Your task to perform on an android device: clear history in the chrome app Image 0: 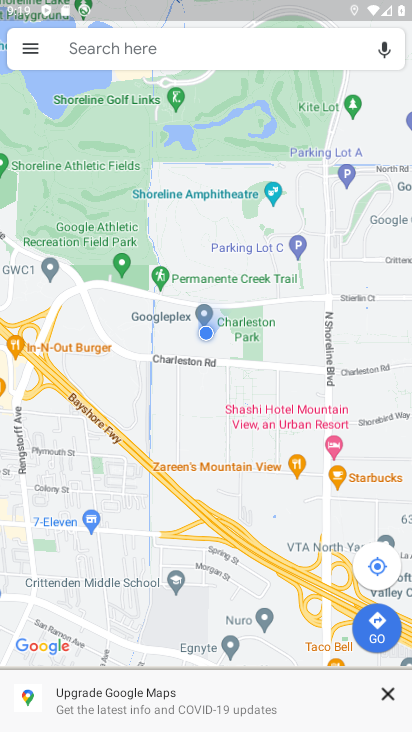
Step 0: press home button
Your task to perform on an android device: clear history in the chrome app Image 1: 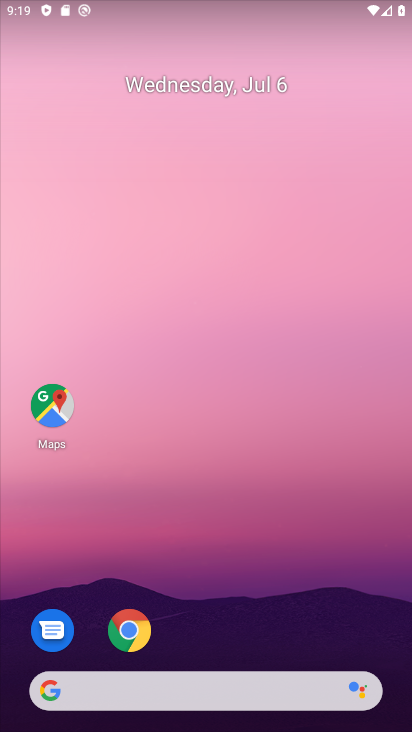
Step 1: click (126, 639)
Your task to perform on an android device: clear history in the chrome app Image 2: 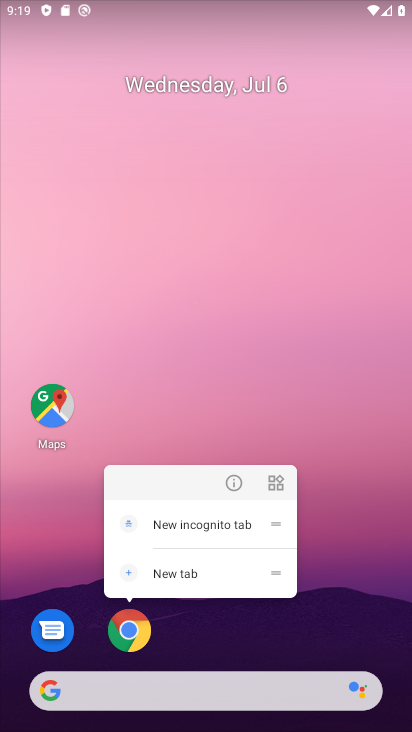
Step 2: click (127, 637)
Your task to perform on an android device: clear history in the chrome app Image 3: 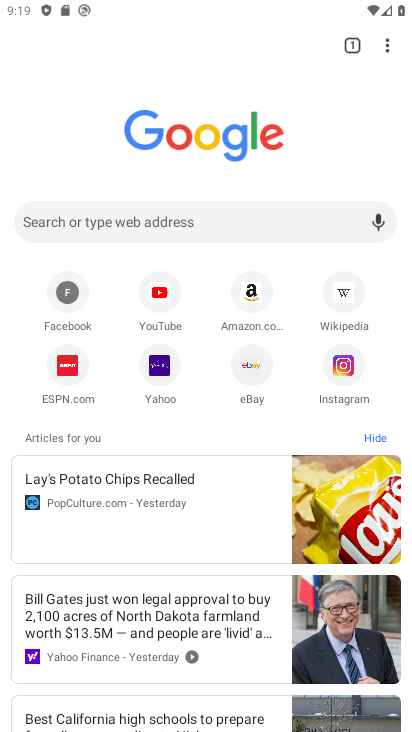
Step 3: click (388, 46)
Your task to perform on an android device: clear history in the chrome app Image 4: 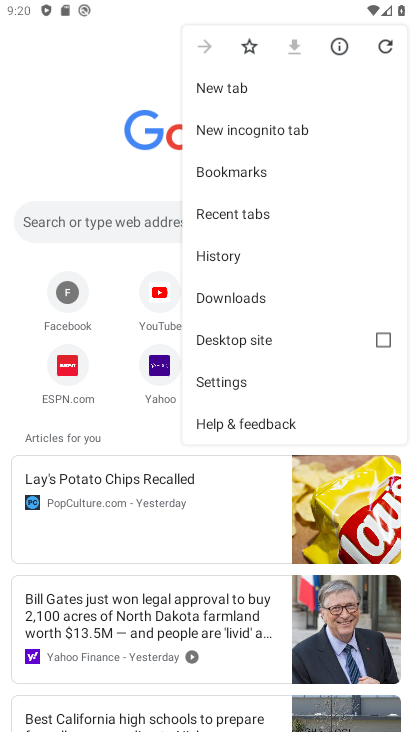
Step 4: click (235, 374)
Your task to perform on an android device: clear history in the chrome app Image 5: 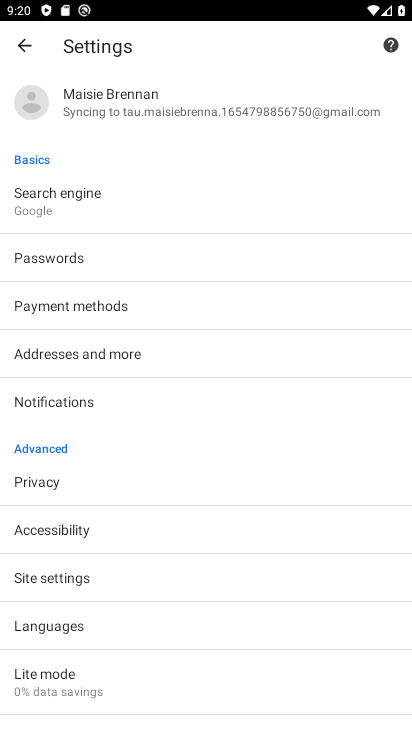
Step 5: click (20, 45)
Your task to perform on an android device: clear history in the chrome app Image 6: 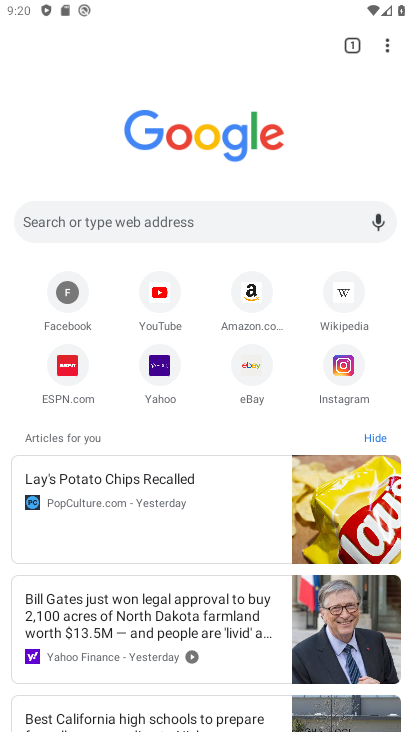
Step 6: click (388, 43)
Your task to perform on an android device: clear history in the chrome app Image 7: 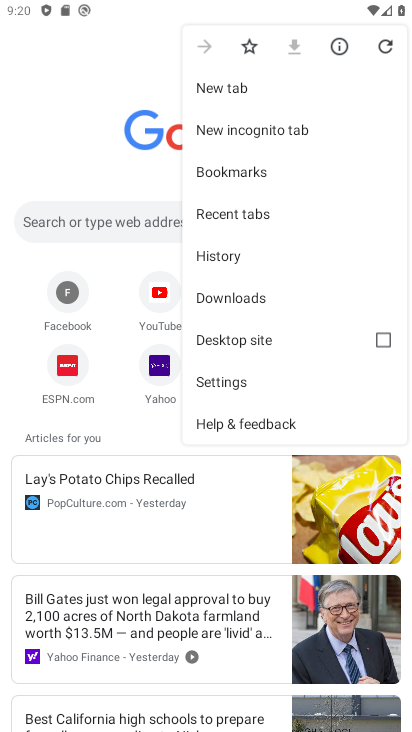
Step 7: click (222, 254)
Your task to perform on an android device: clear history in the chrome app Image 8: 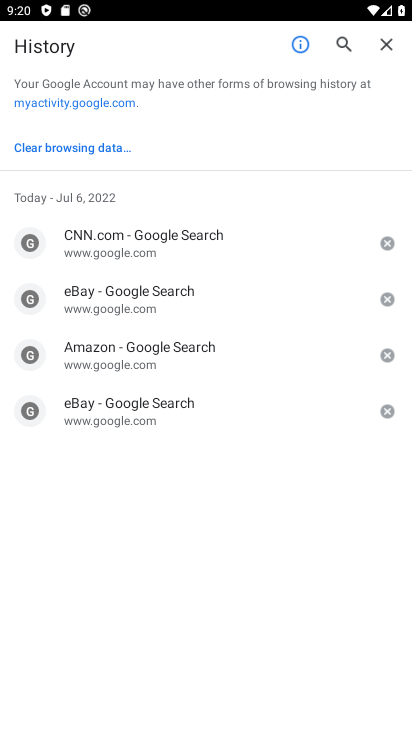
Step 8: click (80, 150)
Your task to perform on an android device: clear history in the chrome app Image 9: 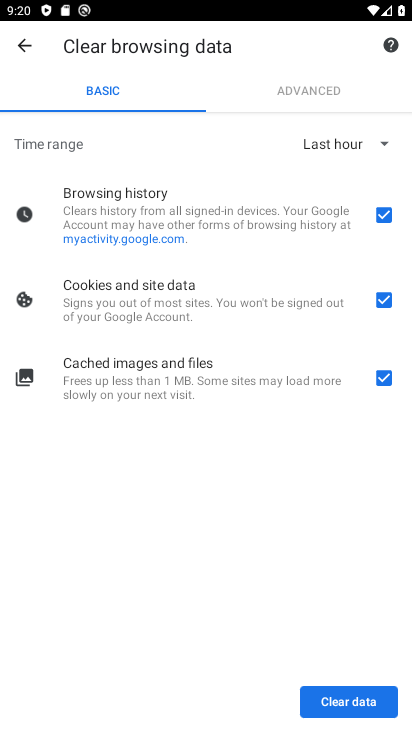
Step 9: click (350, 700)
Your task to perform on an android device: clear history in the chrome app Image 10: 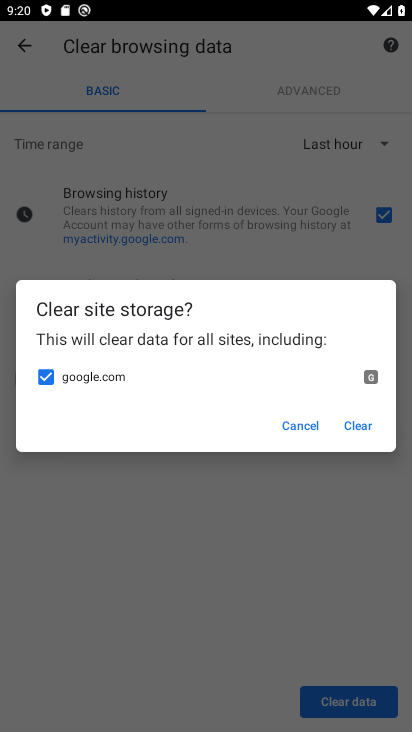
Step 10: click (349, 424)
Your task to perform on an android device: clear history in the chrome app Image 11: 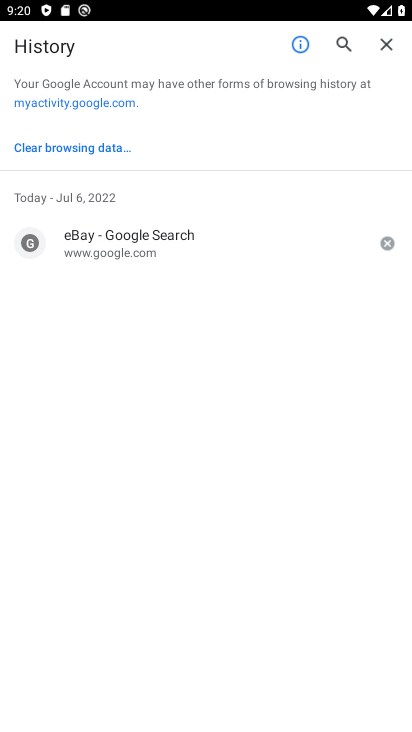
Step 11: task complete